Your task to perform on an android device: change text size in settings app Image 0: 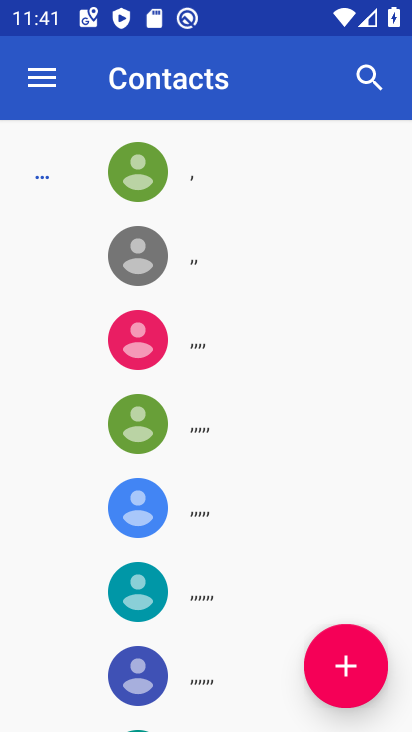
Step 0: press home button
Your task to perform on an android device: change text size in settings app Image 1: 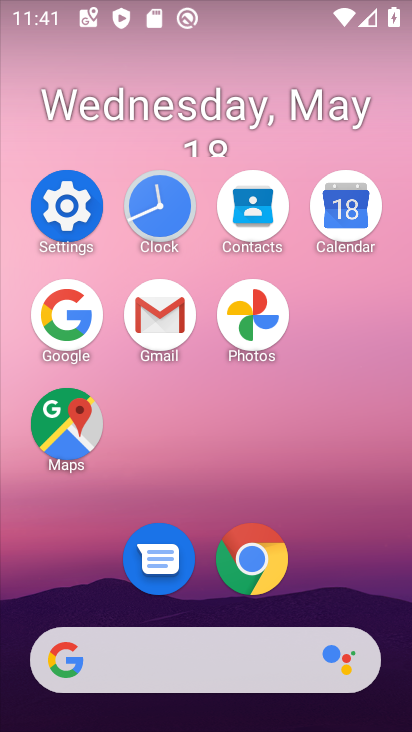
Step 1: click (84, 237)
Your task to perform on an android device: change text size in settings app Image 2: 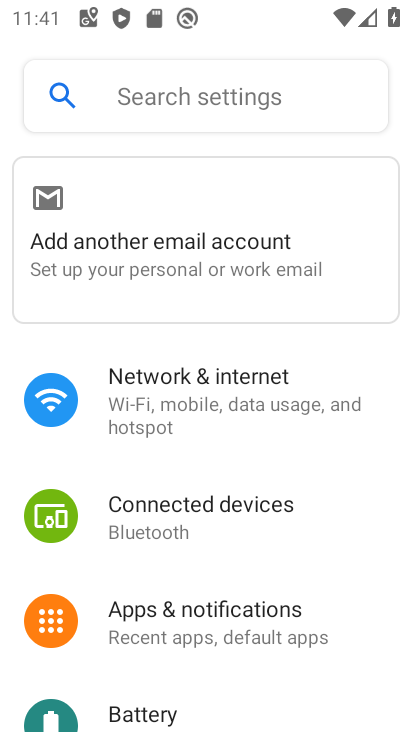
Step 2: drag from (257, 584) to (250, 272)
Your task to perform on an android device: change text size in settings app Image 3: 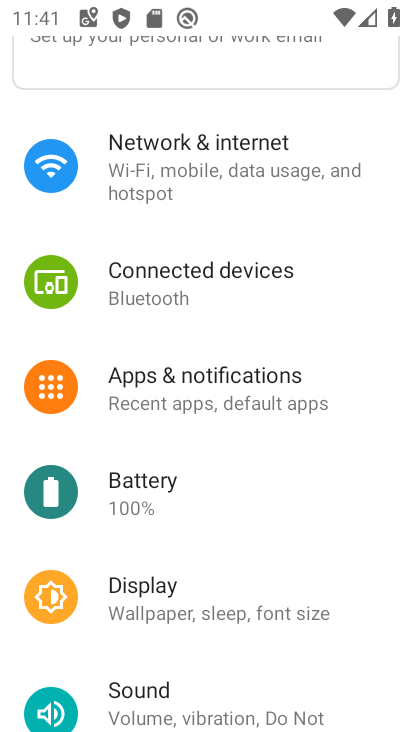
Step 3: click (291, 611)
Your task to perform on an android device: change text size in settings app Image 4: 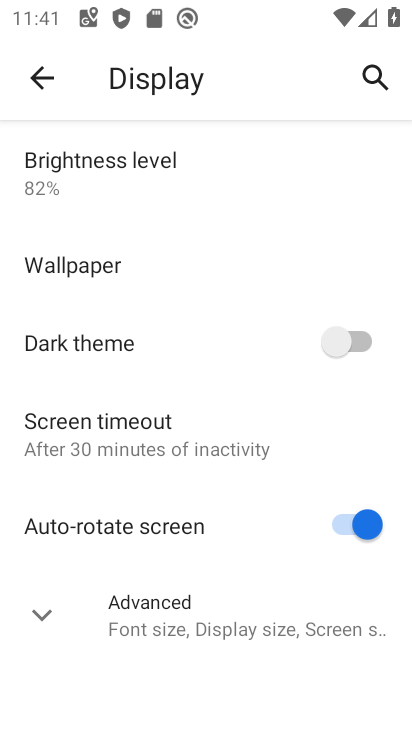
Step 4: drag from (273, 608) to (260, 256)
Your task to perform on an android device: change text size in settings app Image 5: 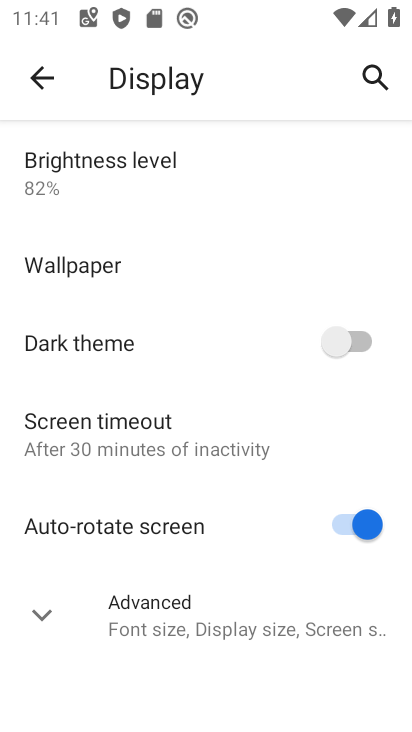
Step 5: click (198, 603)
Your task to perform on an android device: change text size in settings app Image 6: 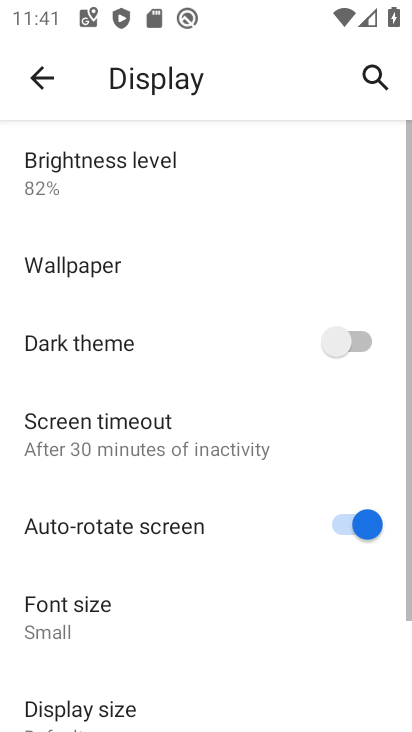
Step 6: drag from (193, 593) to (181, 277)
Your task to perform on an android device: change text size in settings app Image 7: 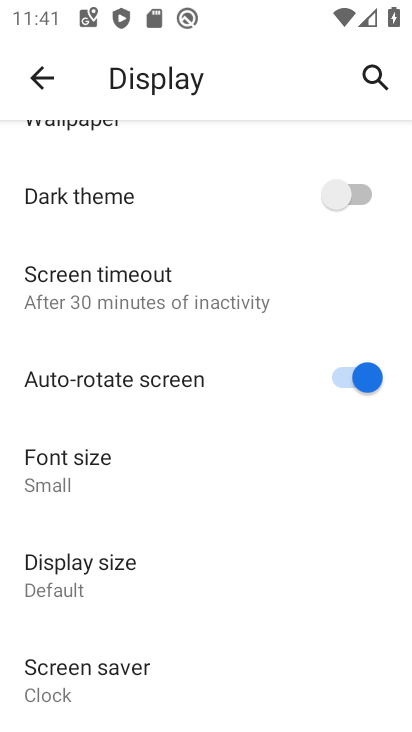
Step 7: click (160, 496)
Your task to perform on an android device: change text size in settings app Image 8: 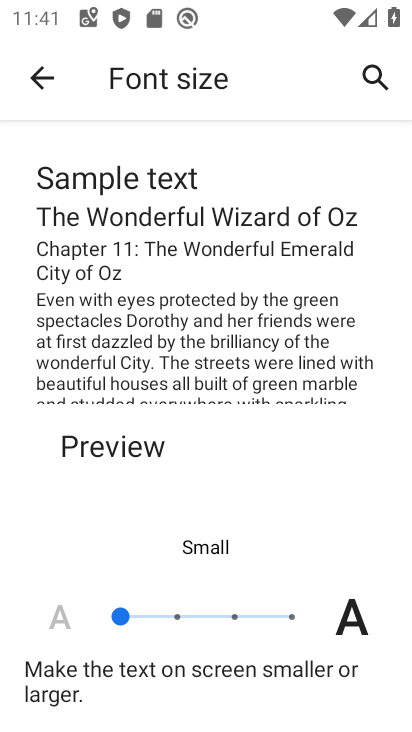
Step 8: click (181, 620)
Your task to perform on an android device: change text size in settings app Image 9: 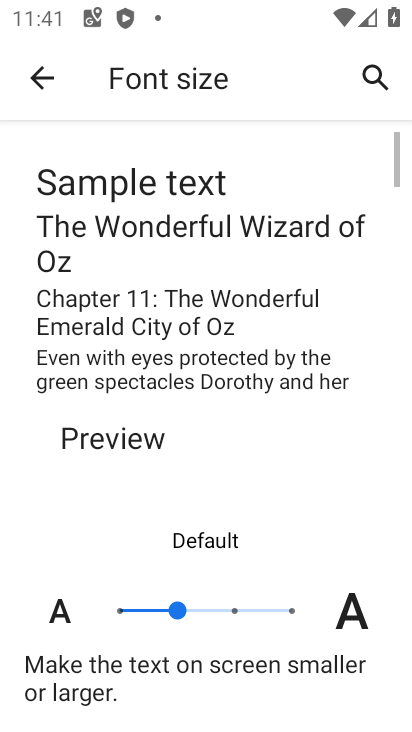
Step 9: task complete